Your task to perform on an android device: all mails in gmail Image 0: 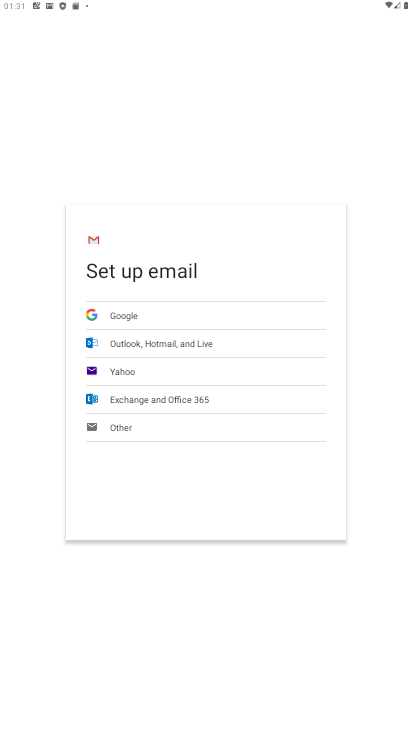
Step 0: press home button
Your task to perform on an android device: all mails in gmail Image 1: 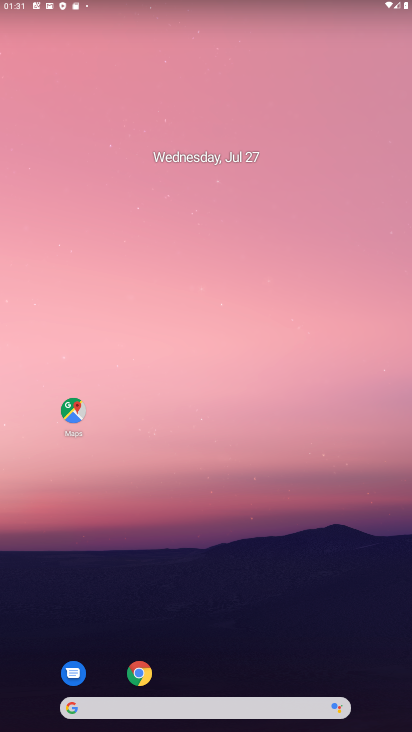
Step 1: drag from (183, 648) to (181, 170)
Your task to perform on an android device: all mails in gmail Image 2: 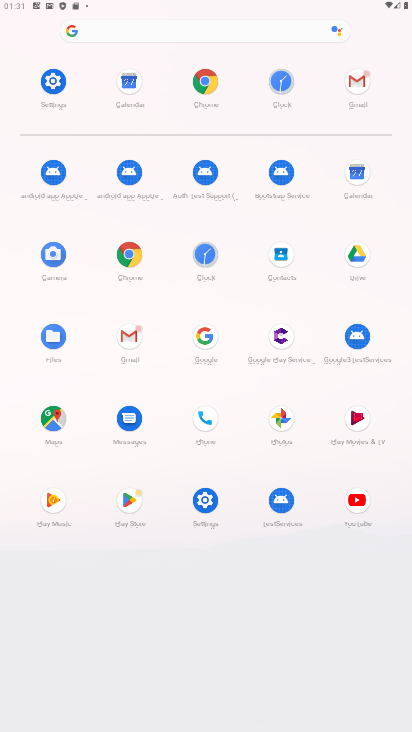
Step 2: click (127, 332)
Your task to perform on an android device: all mails in gmail Image 3: 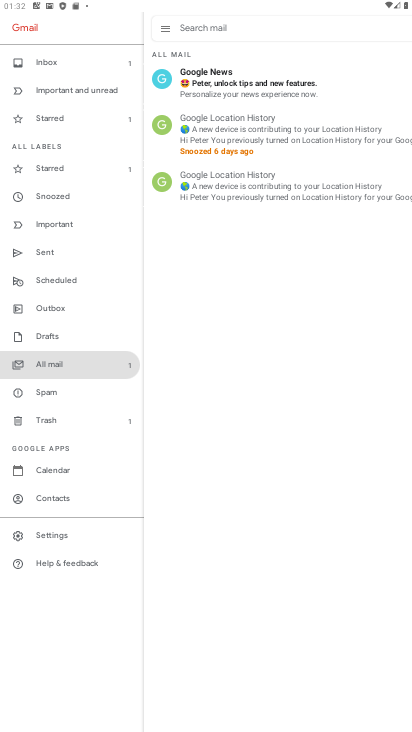
Step 3: task complete